Your task to perform on an android device: see tabs open on other devices in the chrome app Image 0: 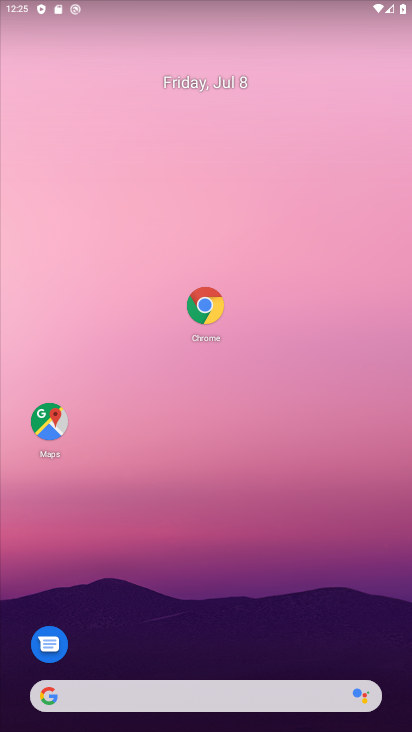
Step 0: click (203, 298)
Your task to perform on an android device: see tabs open on other devices in the chrome app Image 1: 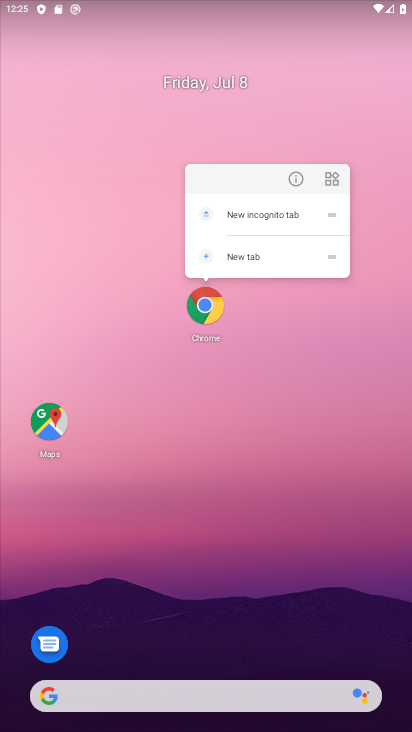
Step 1: click (203, 301)
Your task to perform on an android device: see tabs open on other devices in the chrome app Image 2: 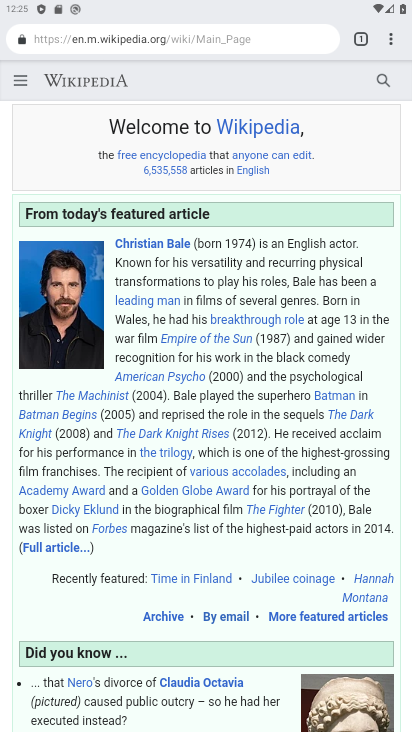
Step 2: click (366, 39)
Your task to perform on an android device: see tabs open on other devices in the chrome app Image 3: 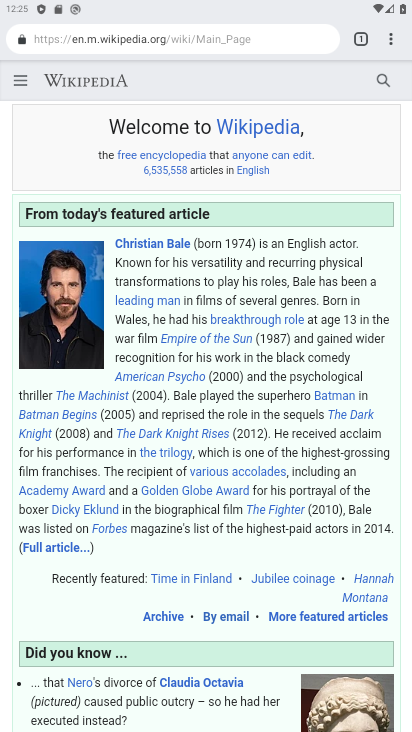
Step 3: click (361, 38)
Your task to perform on an android device: see tabs open on other devices in the chrome app Image 4: 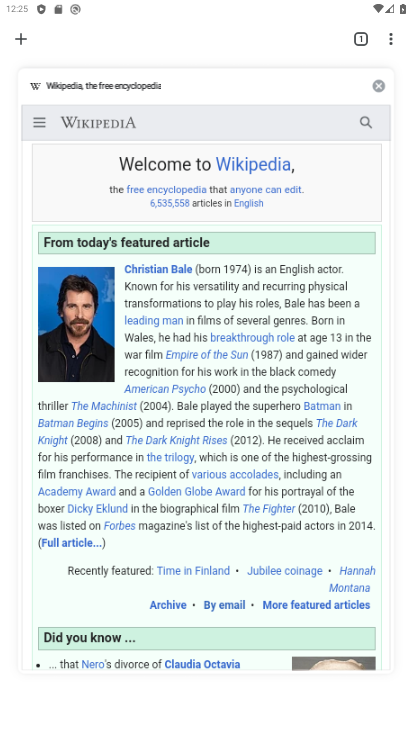
Step 4: task complete